Your task to perform on an android device: Go to location settings Image 0: 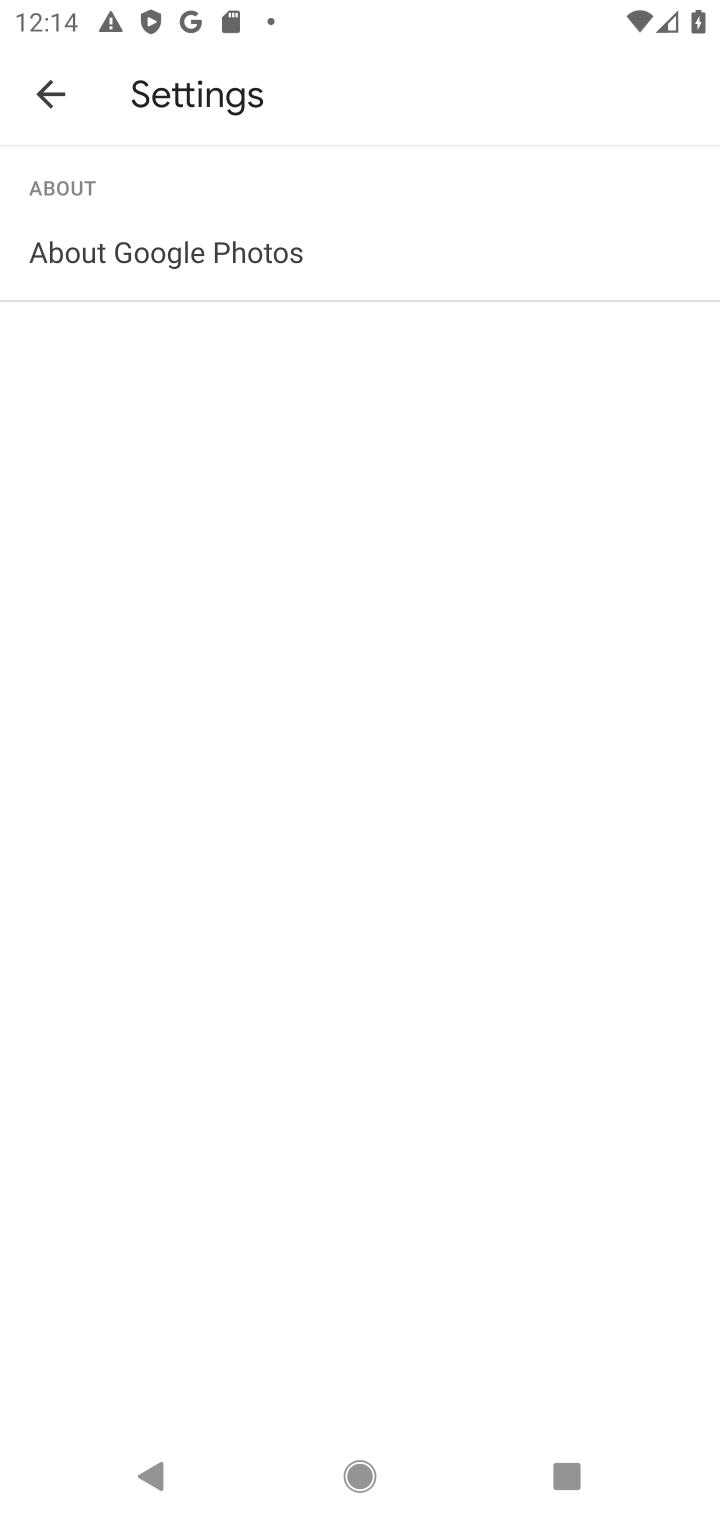
Step 0: click (43, 94)
Your task to perform on an android device: Go to location settings Image 1: 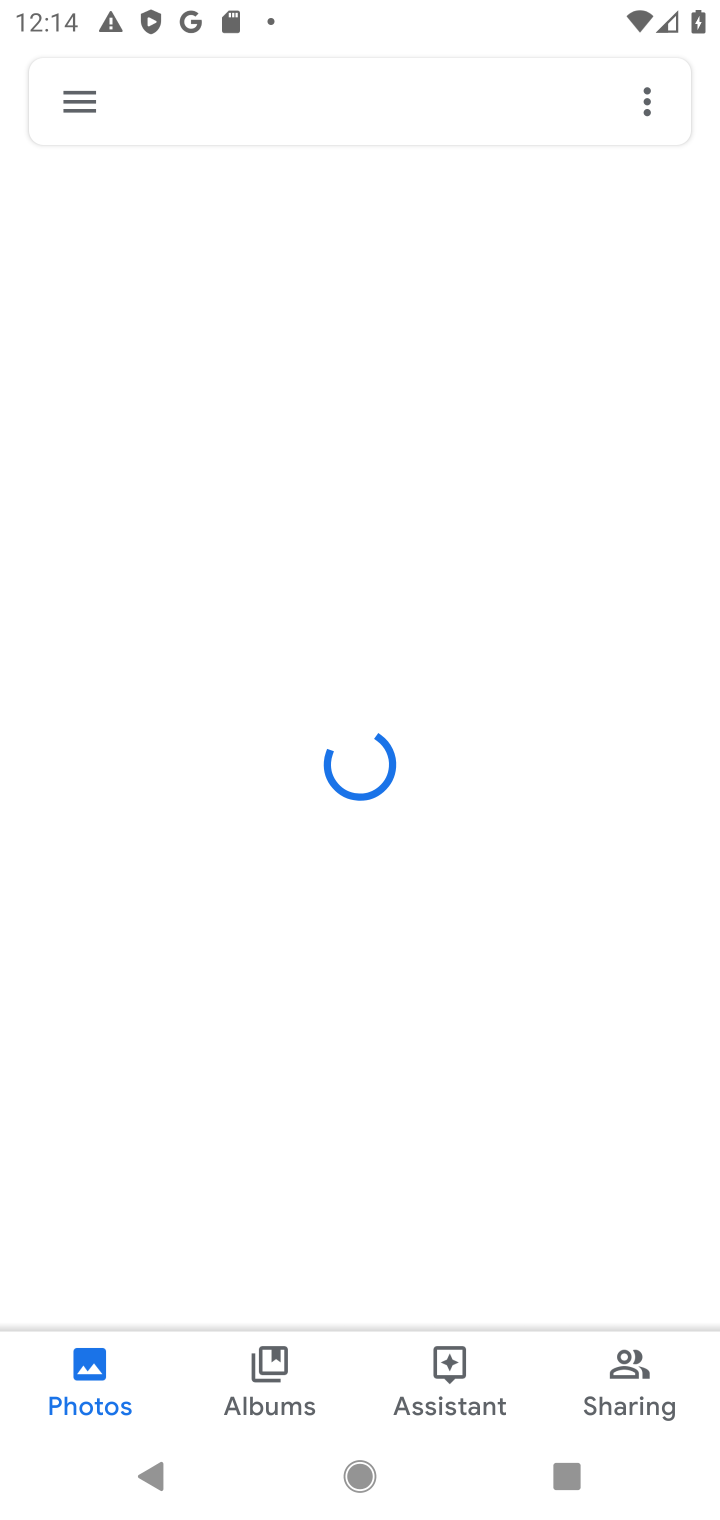
Step 1: press back button
Your task to perform on an android device: Go to location settings Image 2: 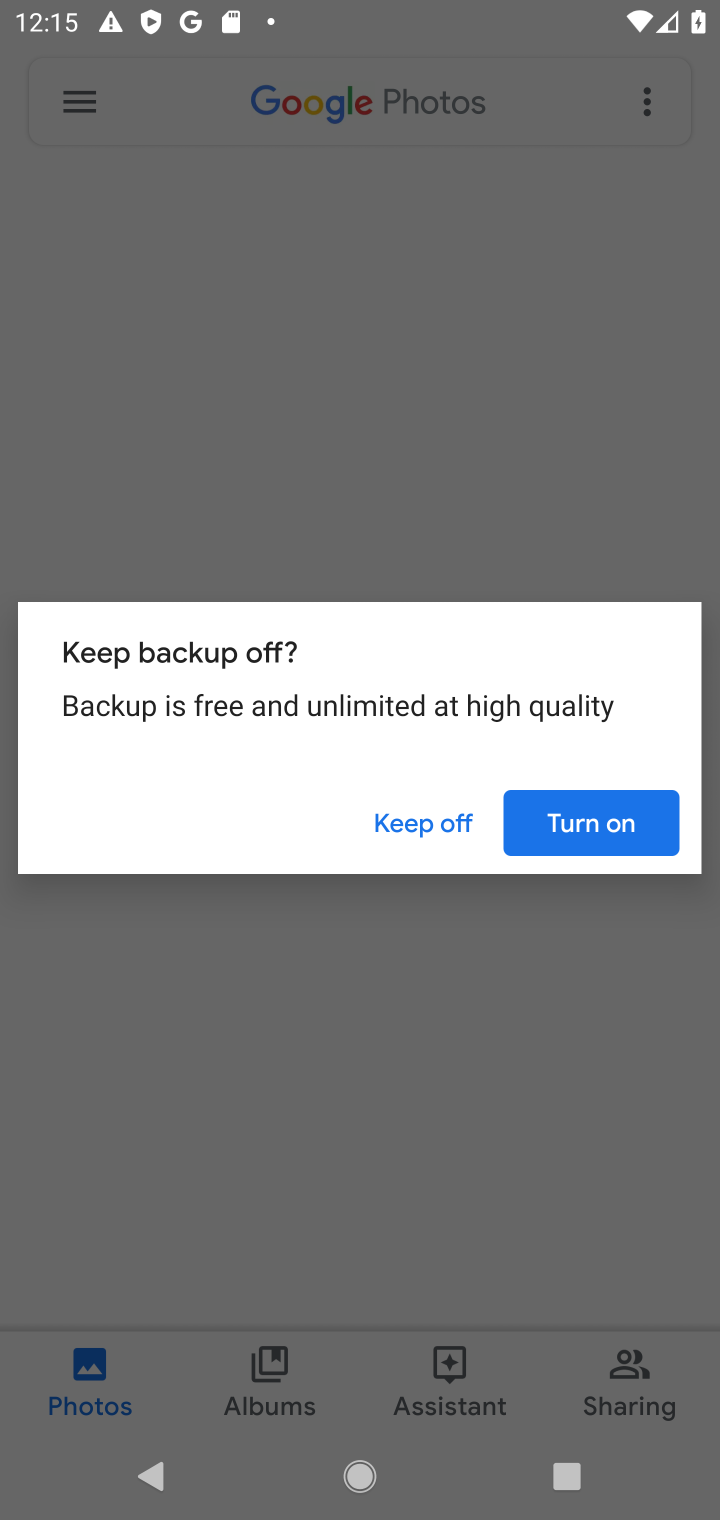
Step 2: click (417, 815)
Your task to perform on an android device: Go to location settings Image 3: 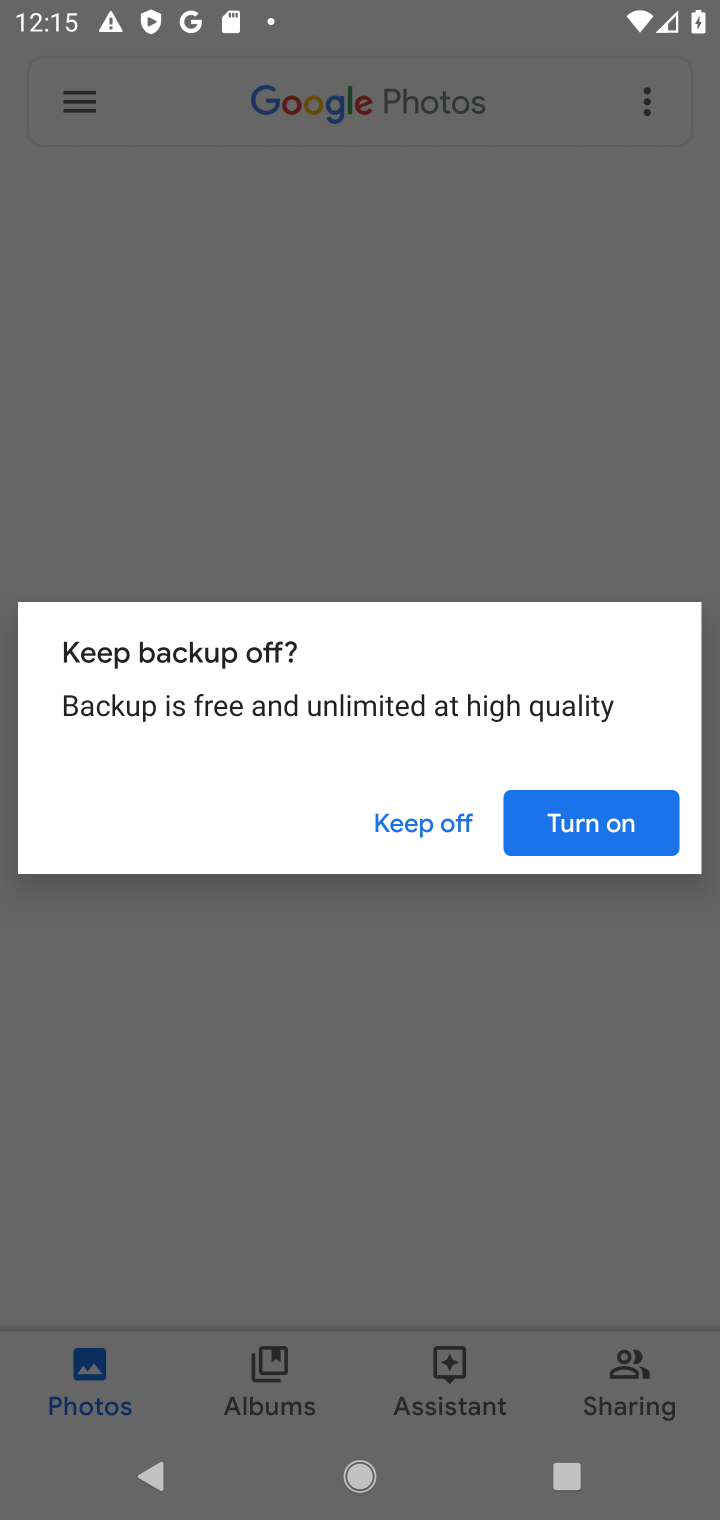
Step 3: click (417, 817)
Your task to perform on an android device: Go to location settings Image 4: 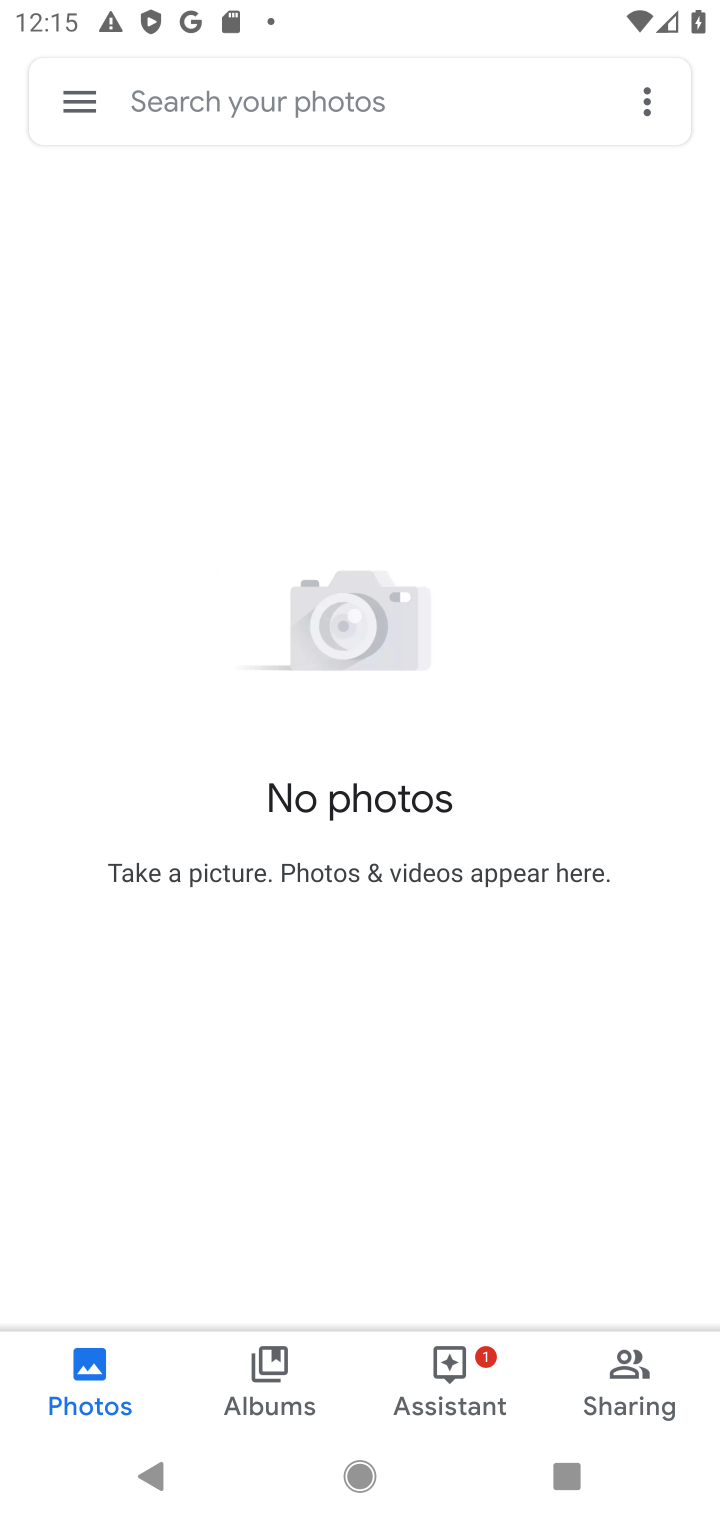
Step 4: press back button
Your task to perform on an android device: Go to location settings Image 5: 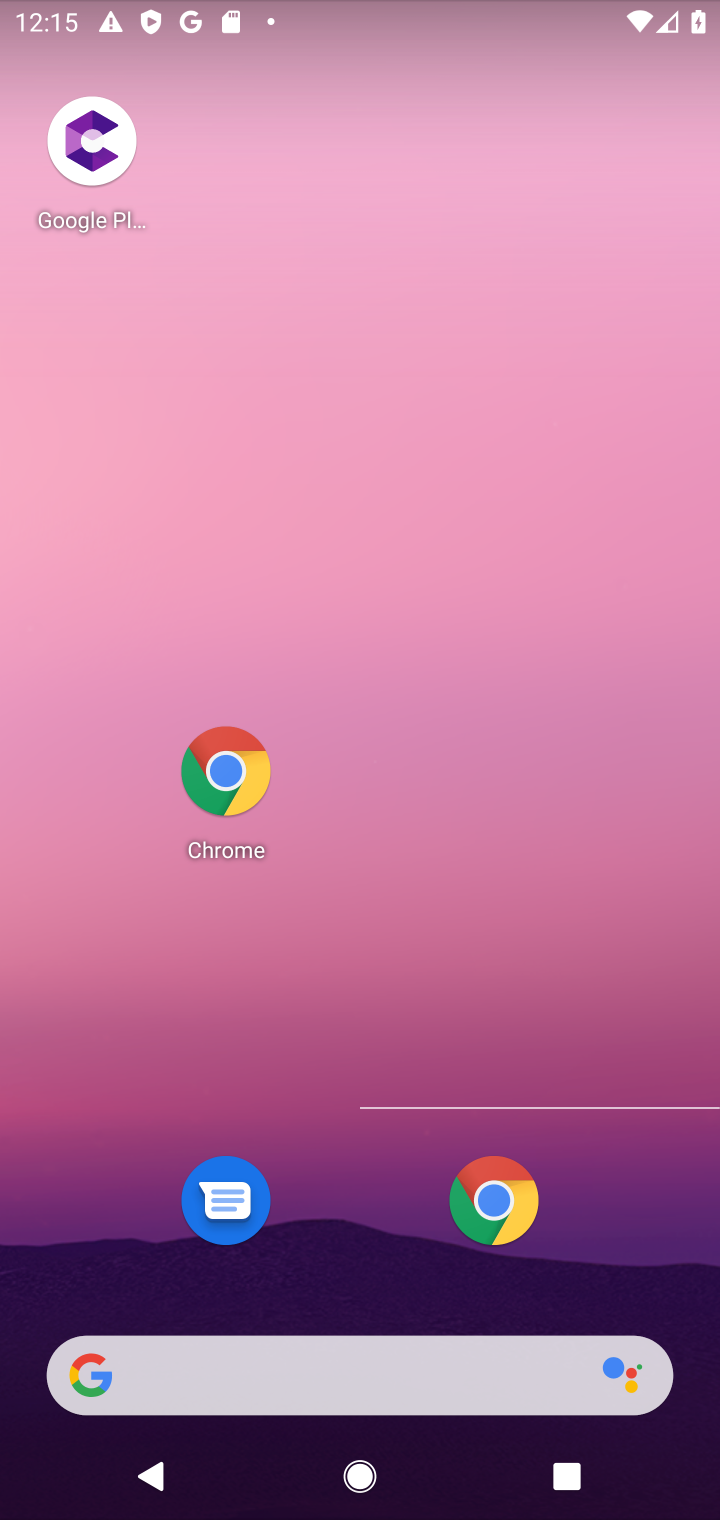
Step 5: click (368, 522)
Your task to perform on an android device: Go to location settings Image 6: 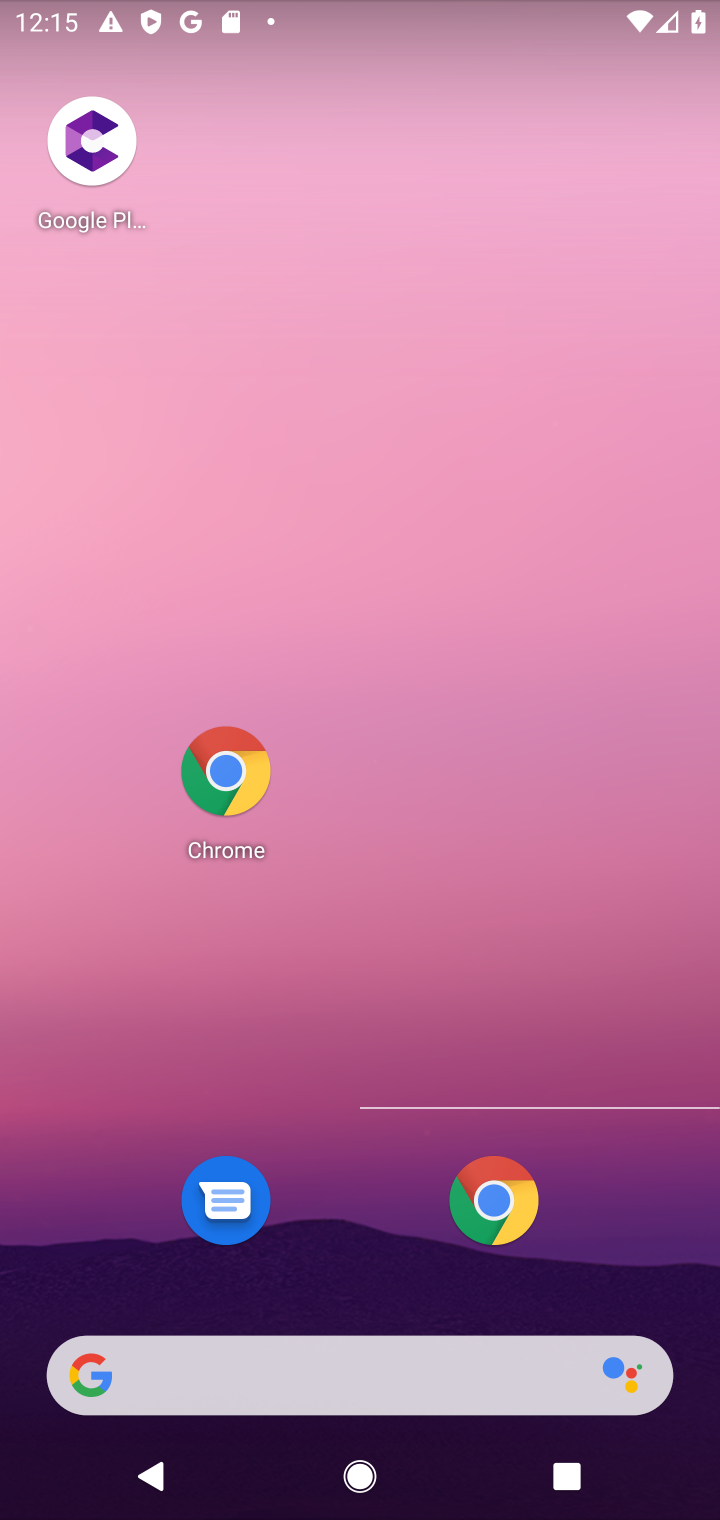
Step 6: drag from (395, 1144) to (493, 510)
Your task to perform on an android device: Go to location settings Image 7: 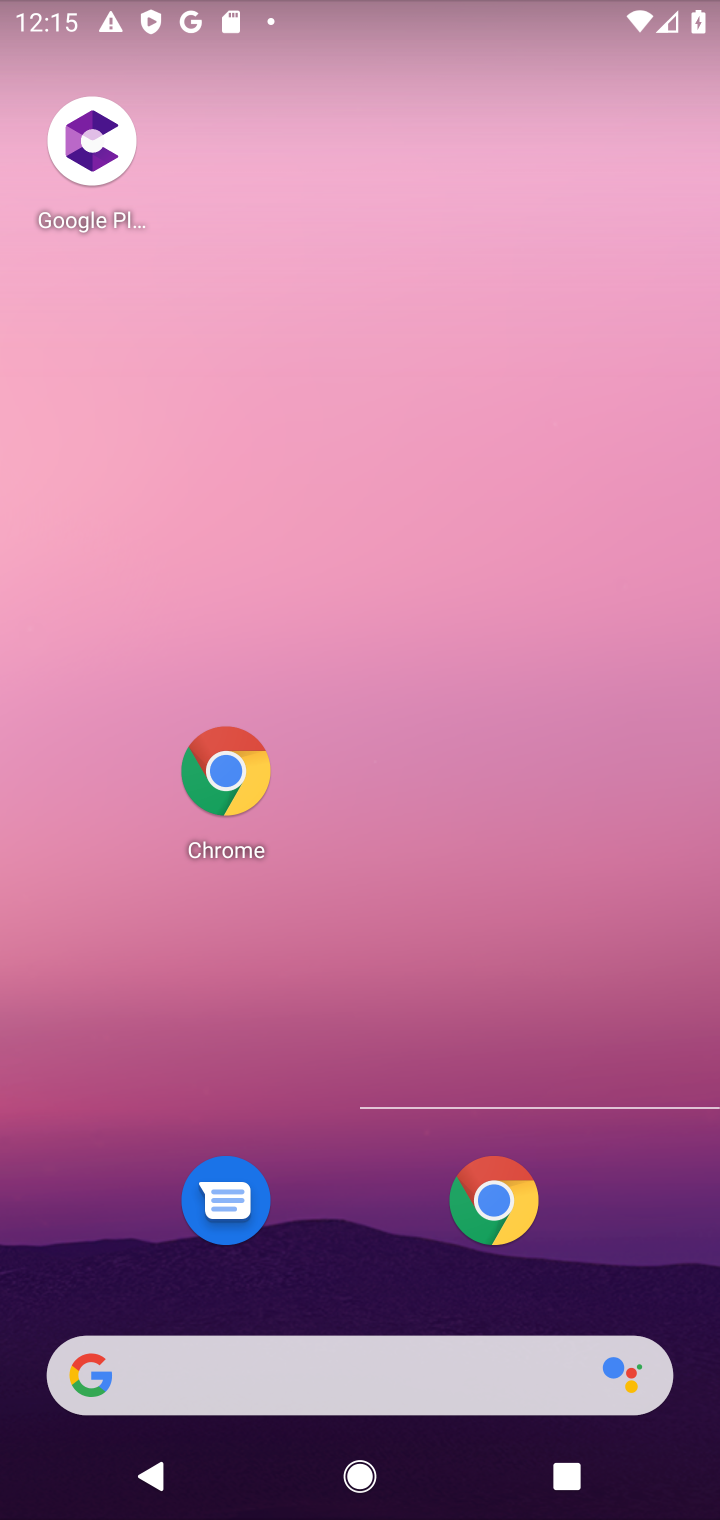
Step 7: drag from (419, 1186) to (408, 105)
Your task to perform on an android device: Go to location settings Image 8: 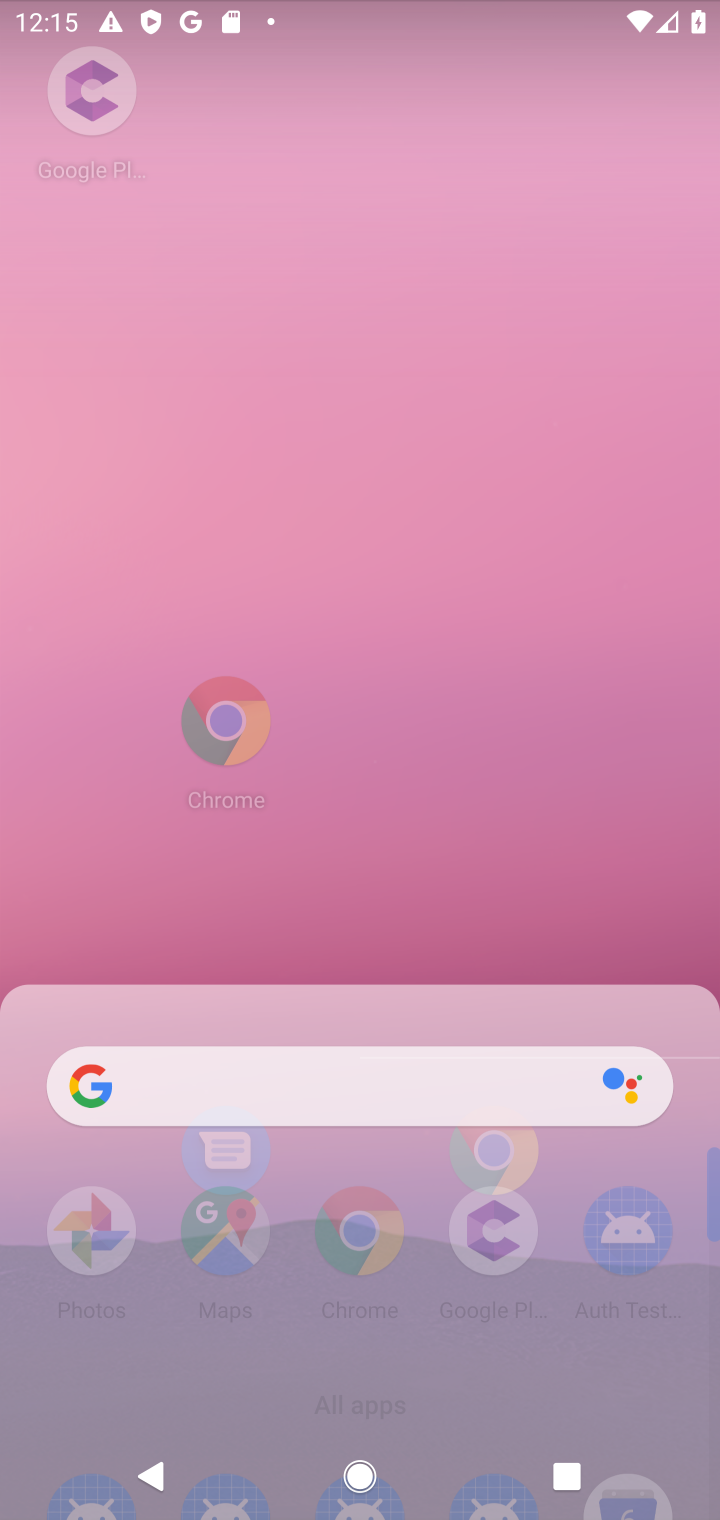
Step 8: click (377, 54)
Your task to perform on an android device: Go to location settings Image 9: 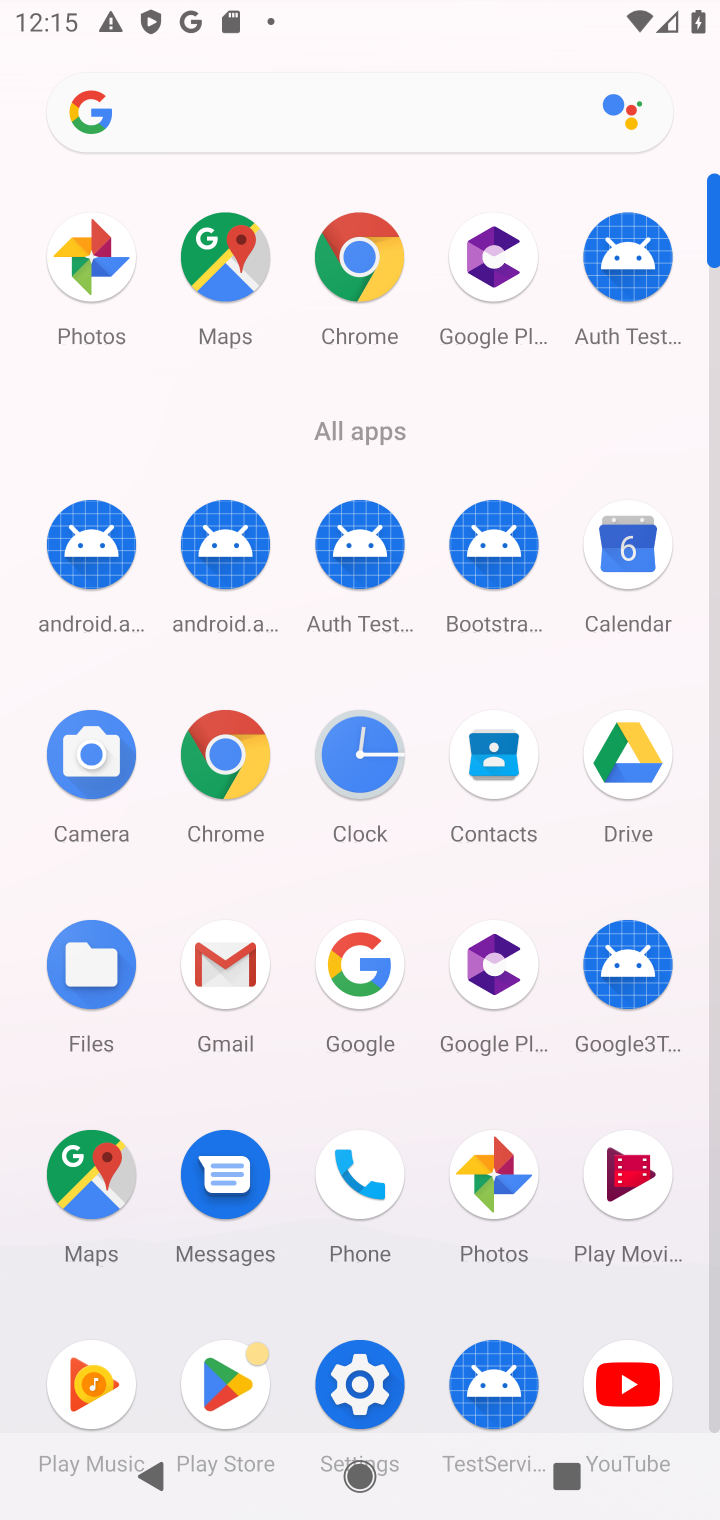
Step 9: click (358, 1362)
Your task to perform on an android device: Go to location settings Image 10: 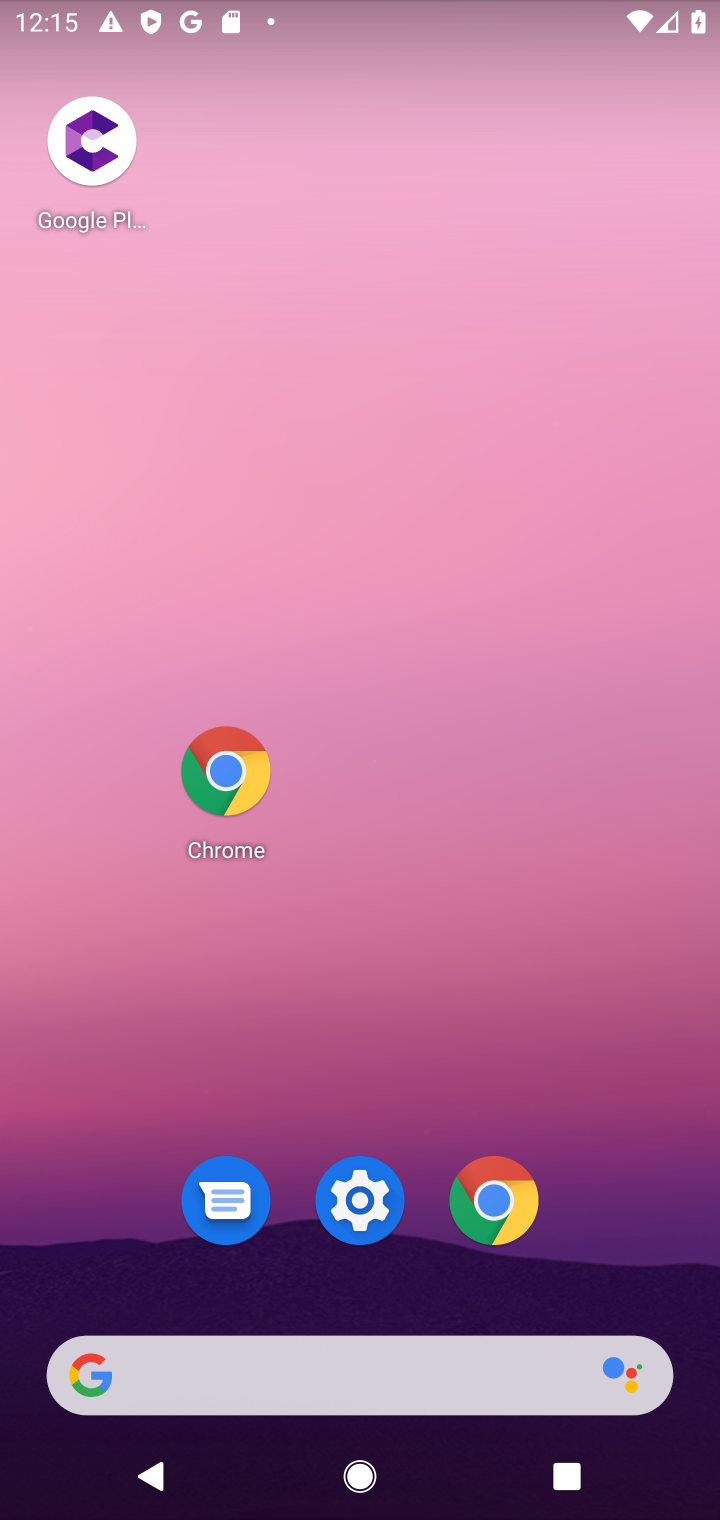
Step 10: drag from (408, 1266) to (387, 652)
Your task to perform on an android device: Go to location settings Image 11: 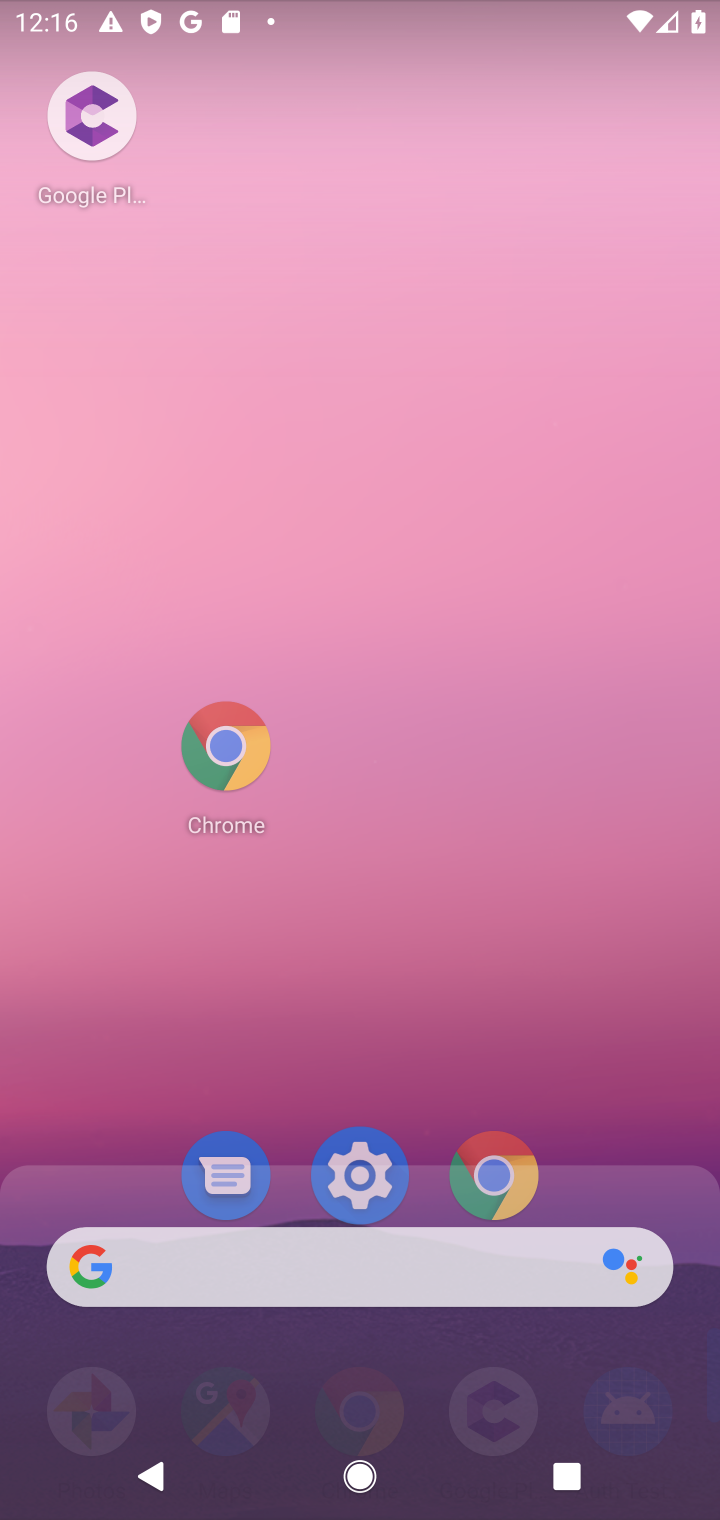
Step 11: drag from (446, 598) to (363, 449)
Your task to perform on an android device: Go to location settings Image 12: 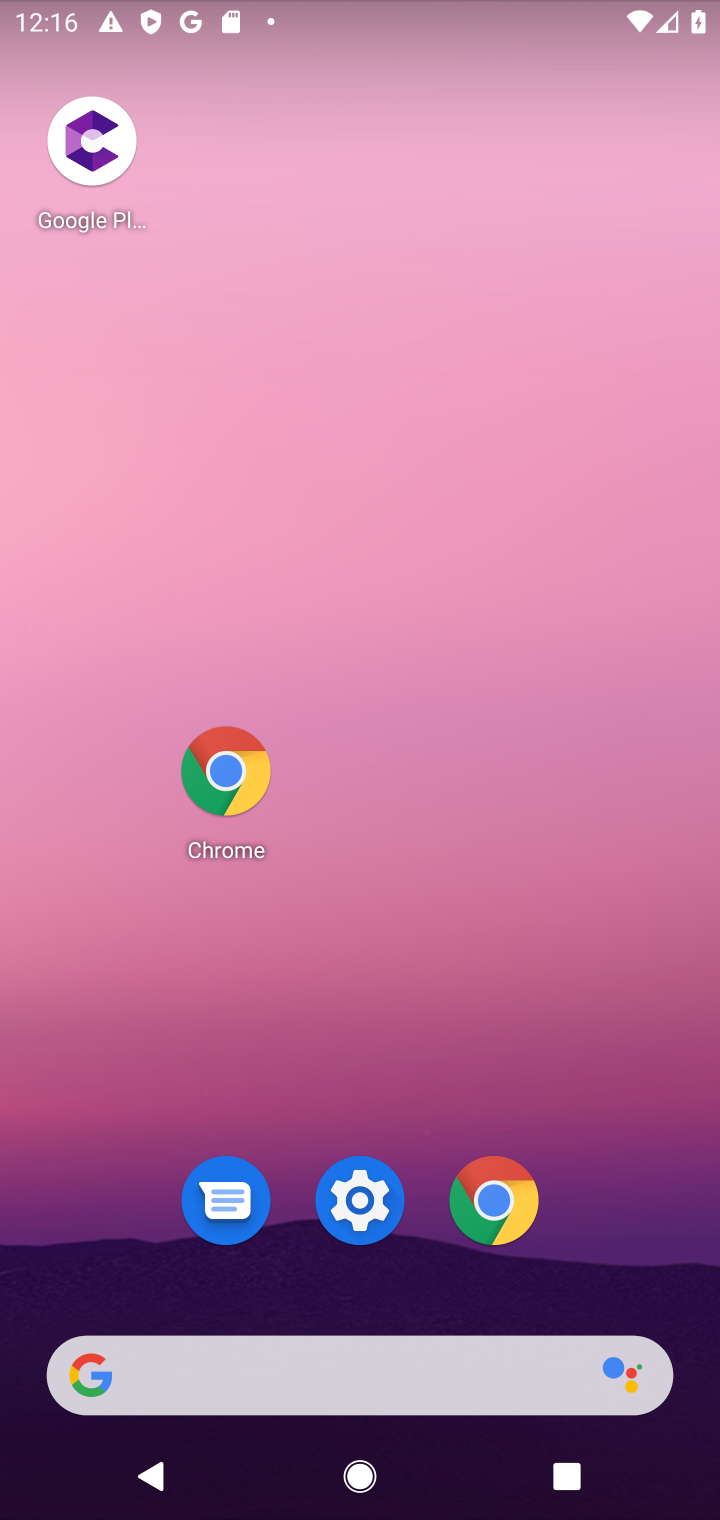
Step 12: drag from (355, 381) to (494, 96)
Your task to perform on an android device: Go to location settings Image 13: 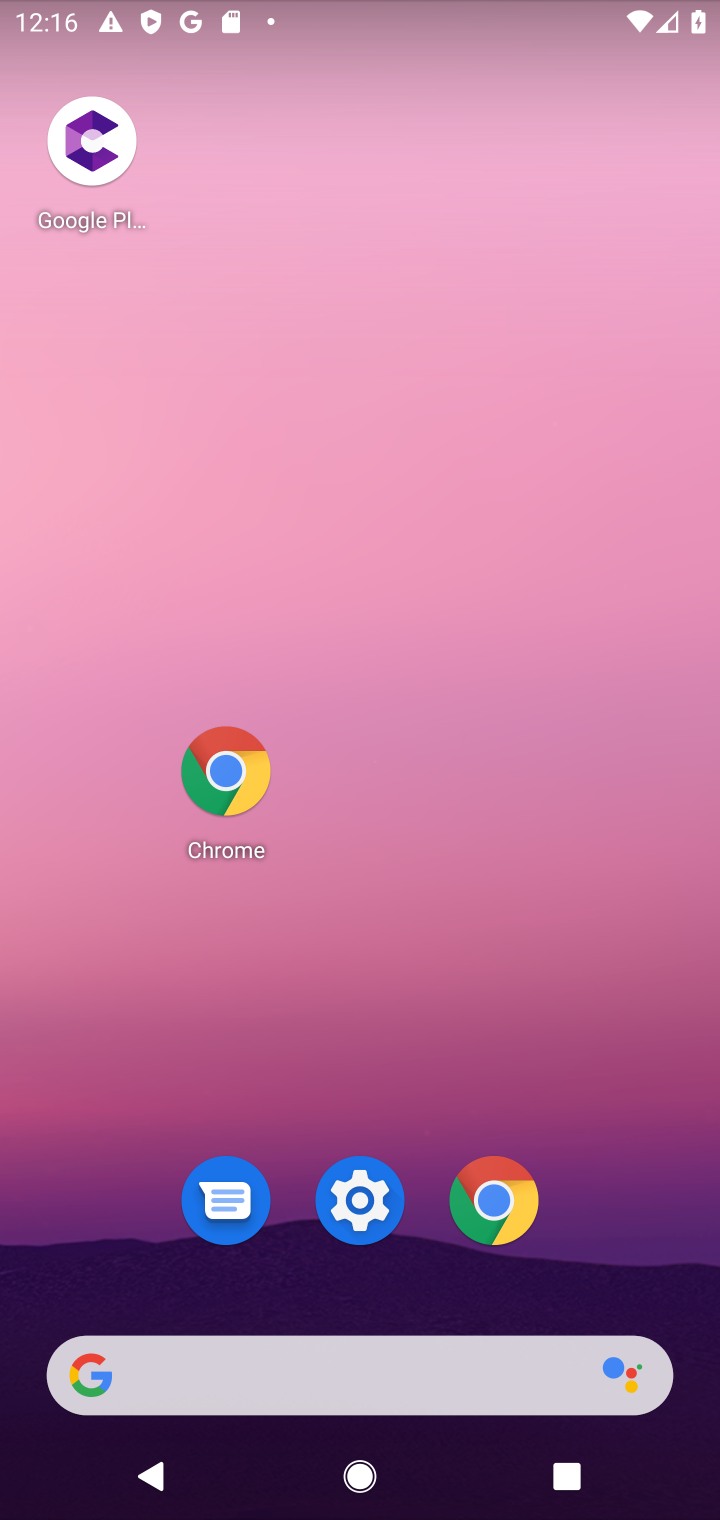
Step 13: click (376, 1193)
Your task to perform on an android device: Go to location settings Image 14: 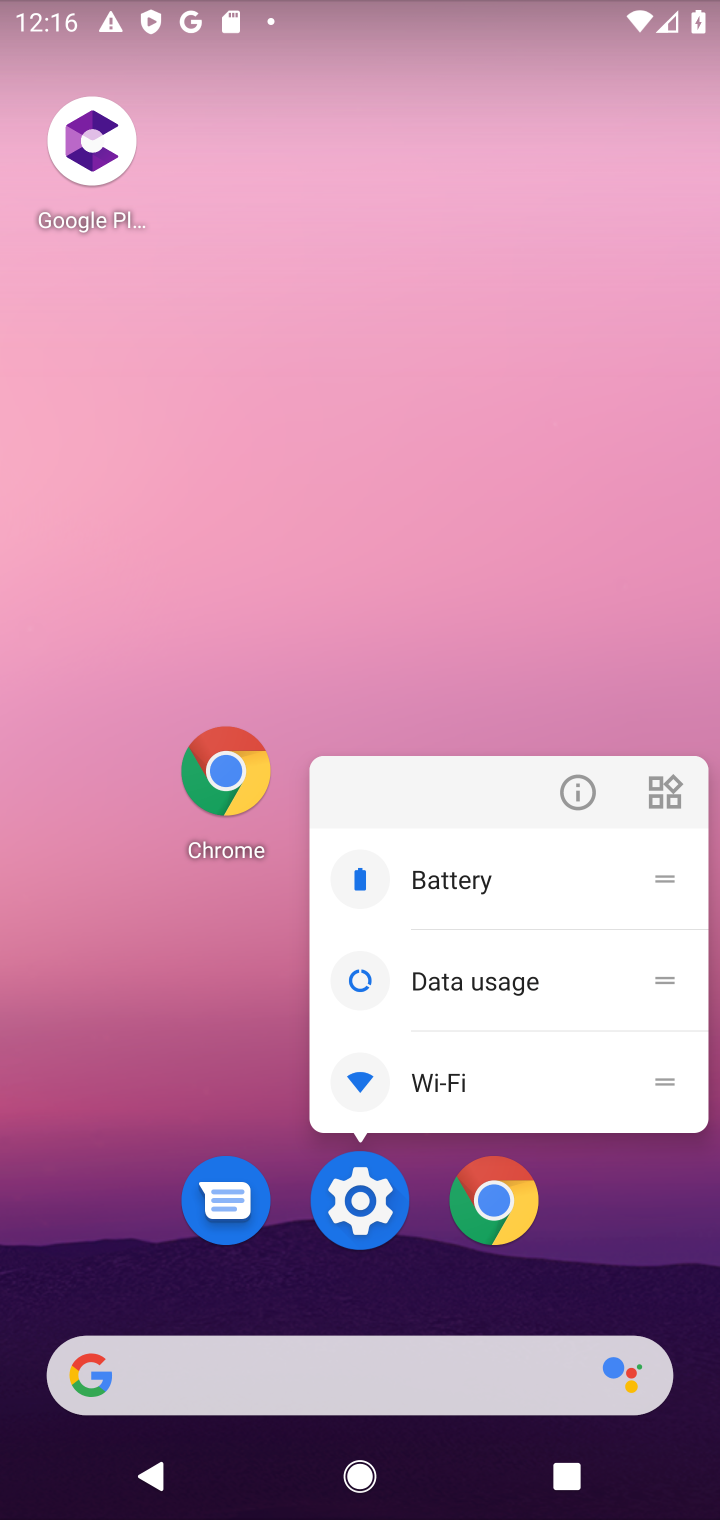
Step 14: click (351, 1191)
Your task to perform on an android device: Go to location settings Image 15: 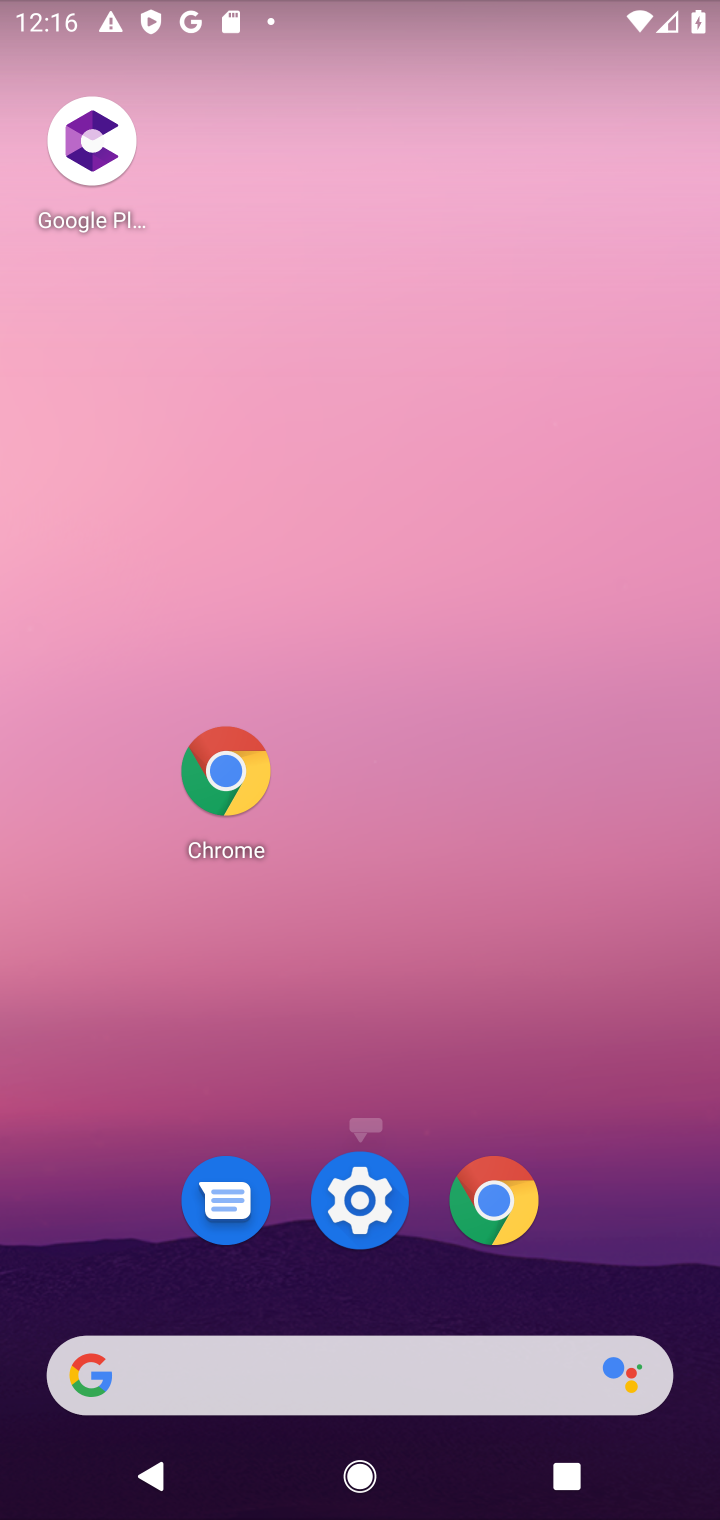
Step 15: click (342, 1209)
Your task to perform on an android device: Go to location settings Image 16: 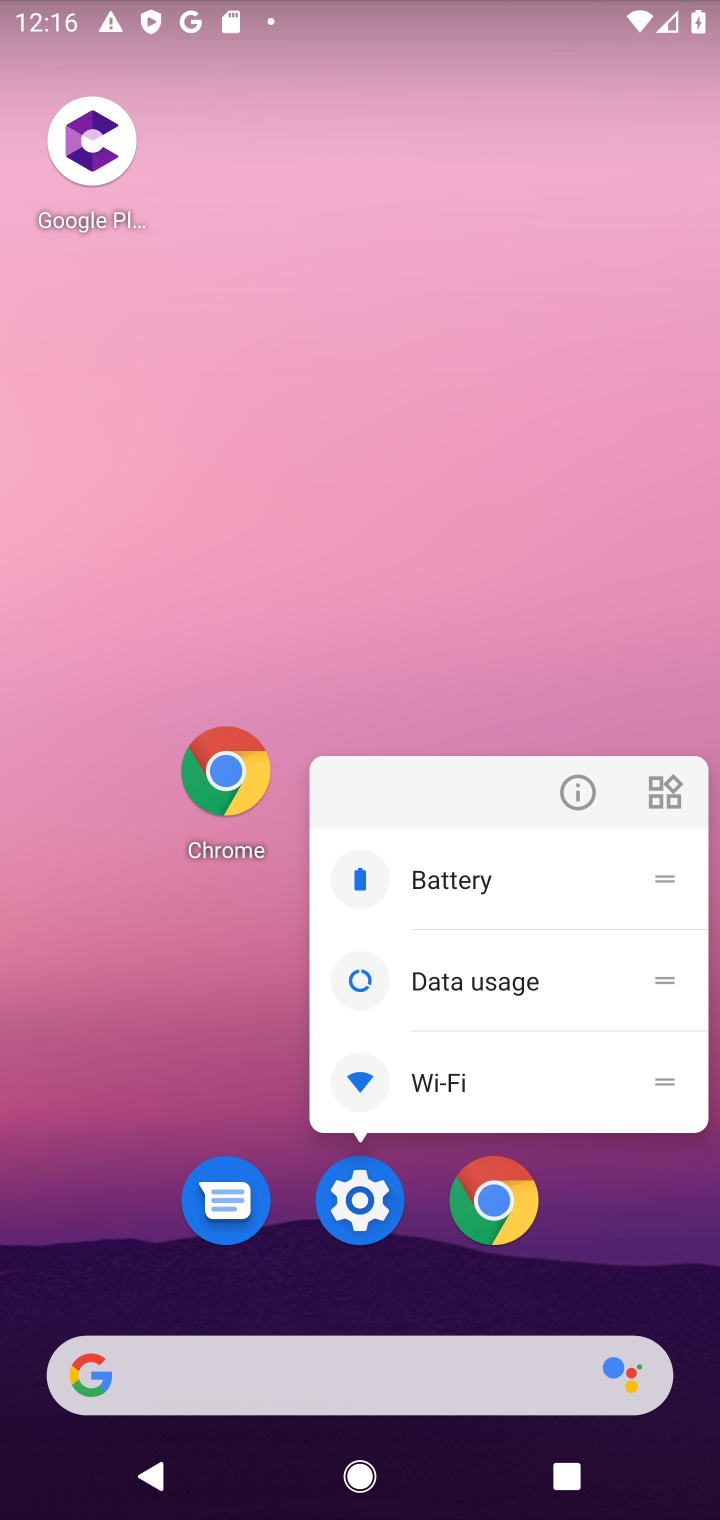
Step 16: drag from (351, 1219) to (431, 1250)
Your task to perform on an android device: Go to location settings Image 17: 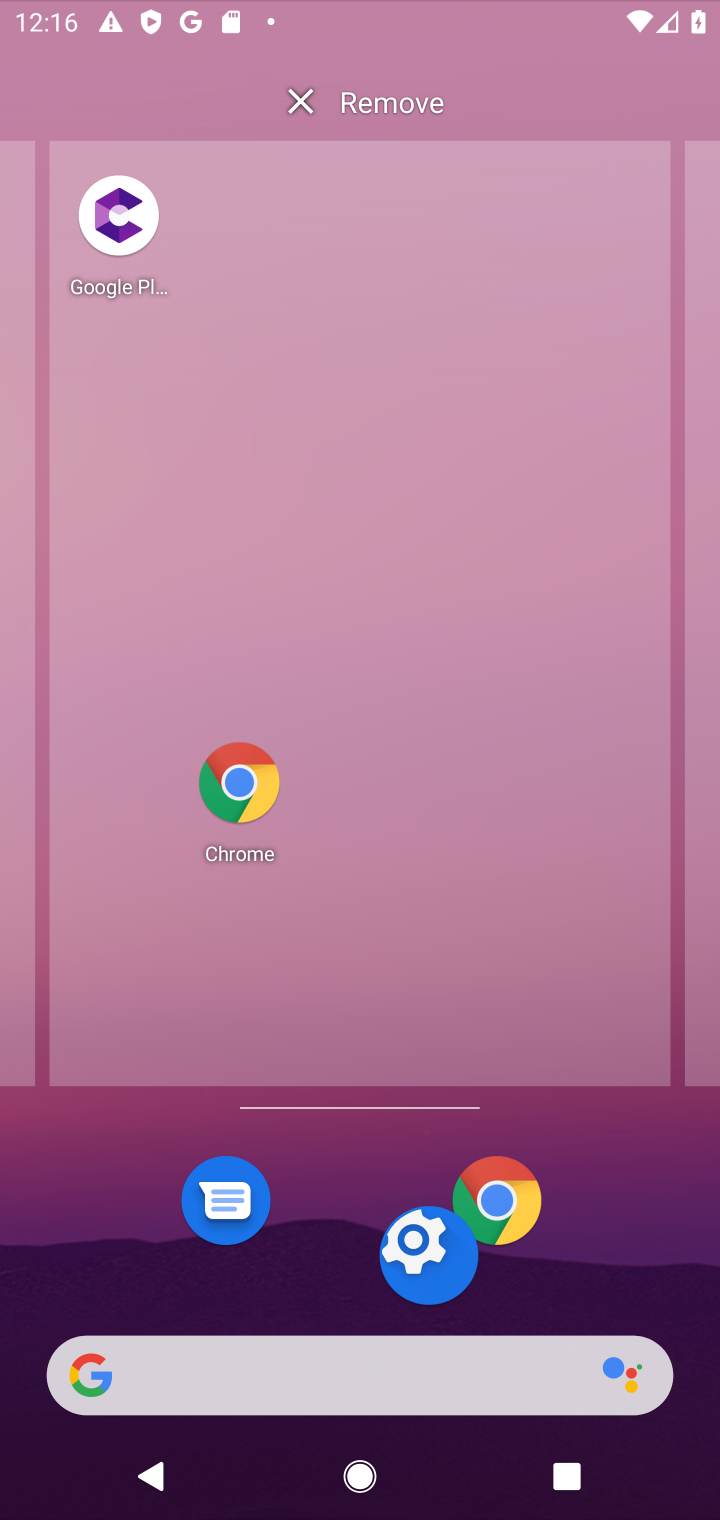
Step 17: click (377, 1214)
Your task to perform on an android device: Go to location settings Image 18: 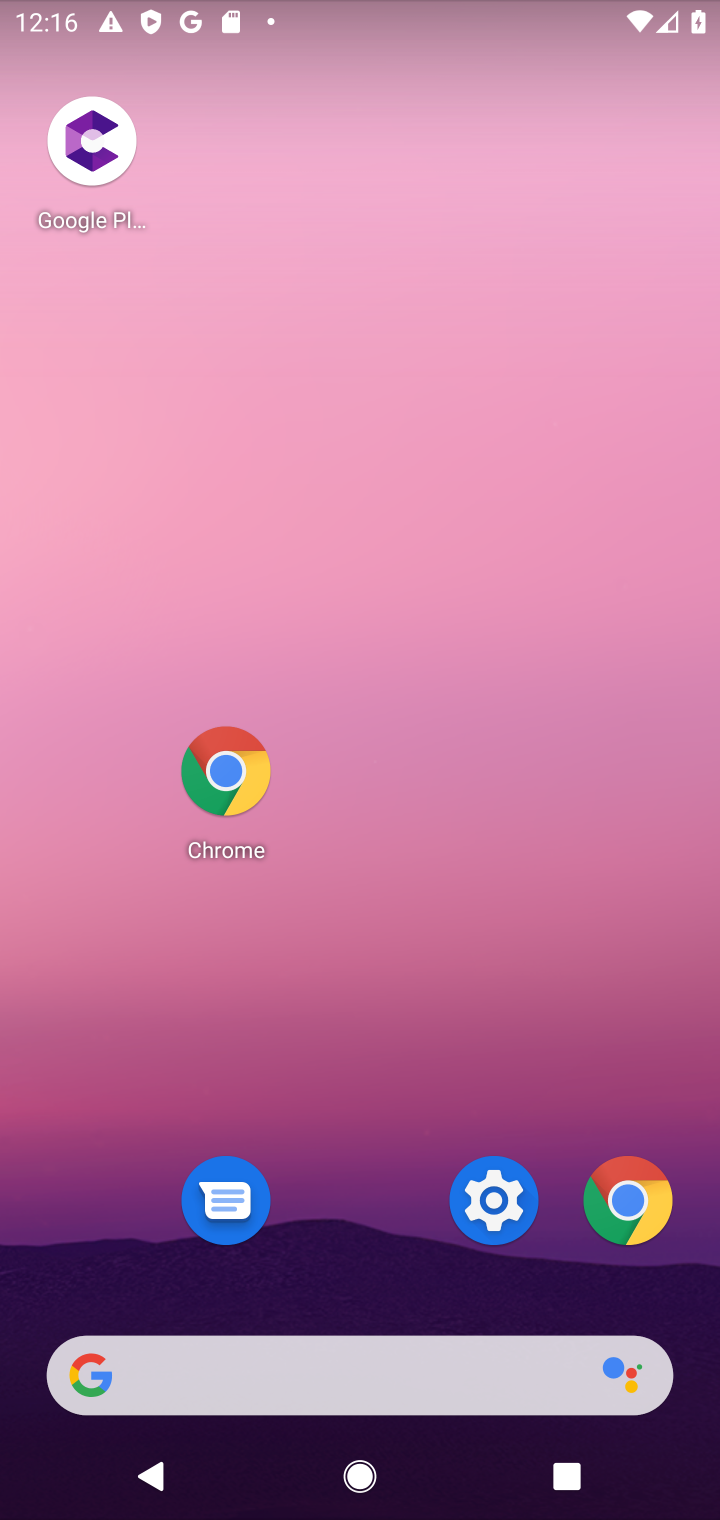
Step 18: click (495, 1206)
Your task to perform on an android device: Go to location settings Image 19: 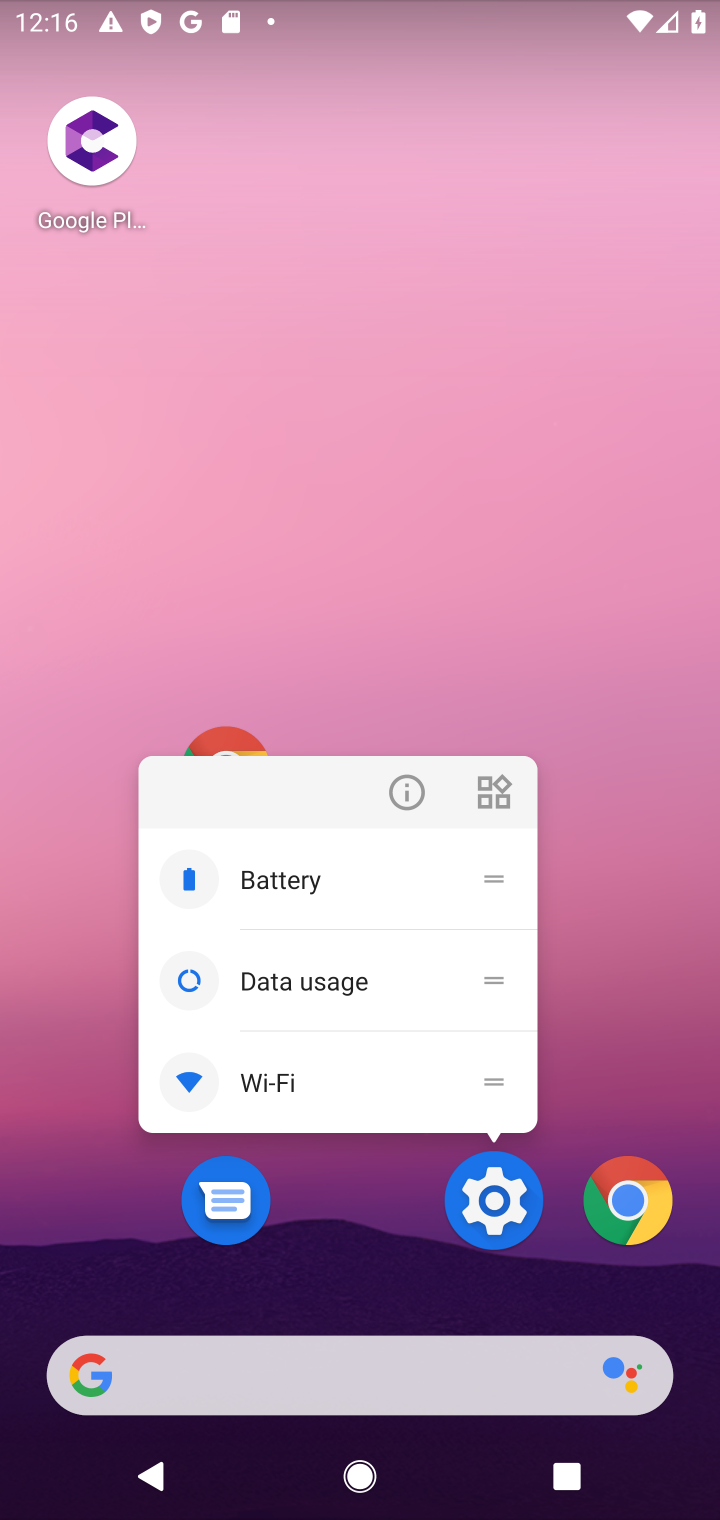
Step 19: click (319, 851)
Your task to perform on an android device: Go to location settings Image 20: 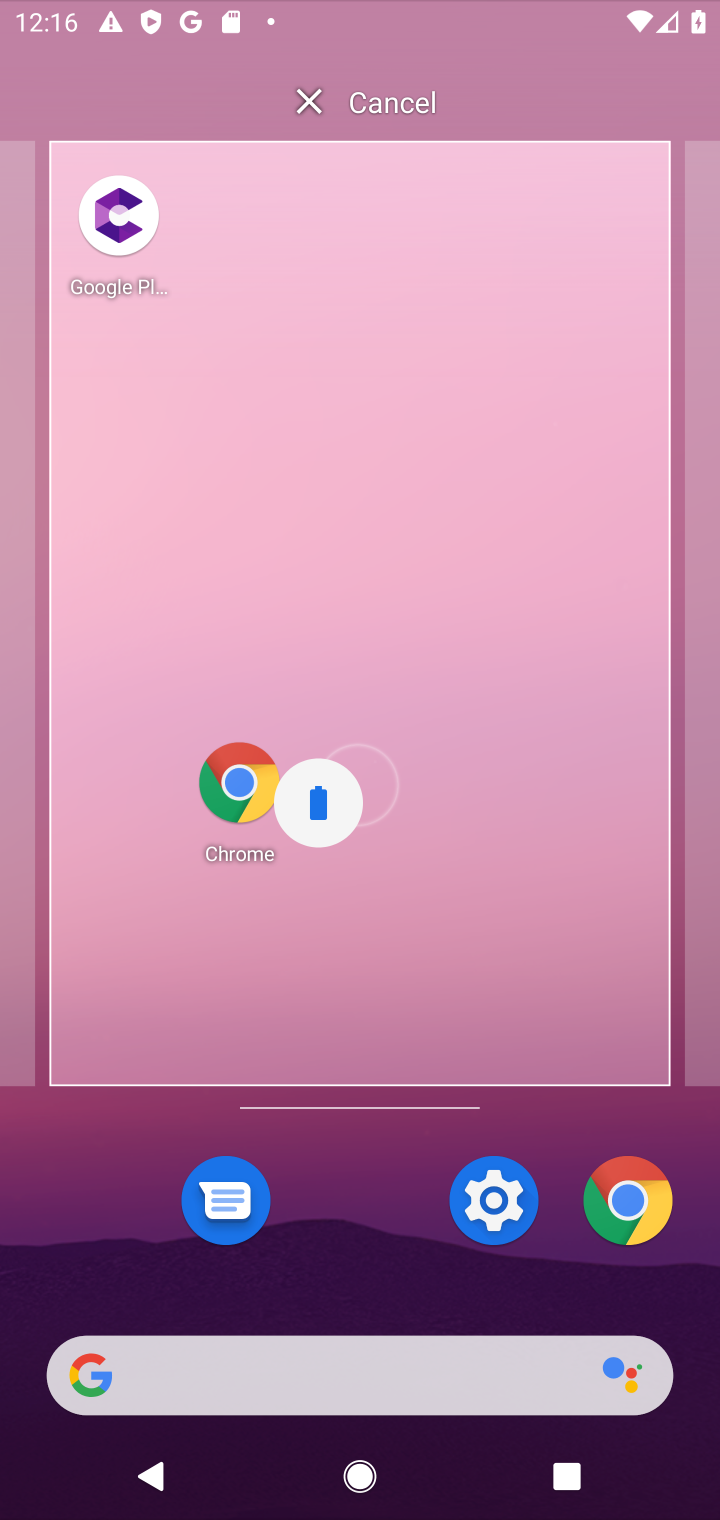
Step 20: click (330, 872)
Your task to perform on an android device: Go to location settings Image 21: 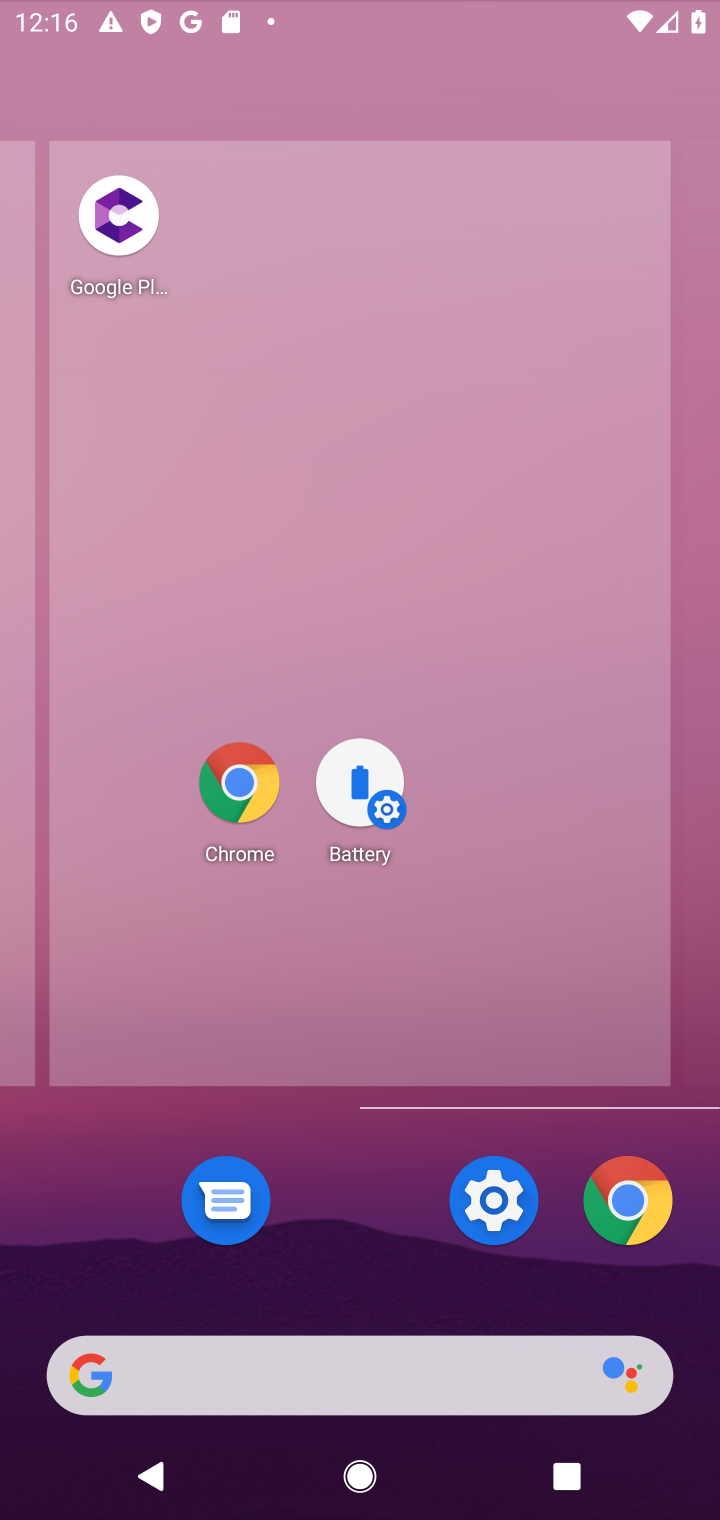
Step 21: task complete